Your task to perform on an android device: Check the news Image 0: 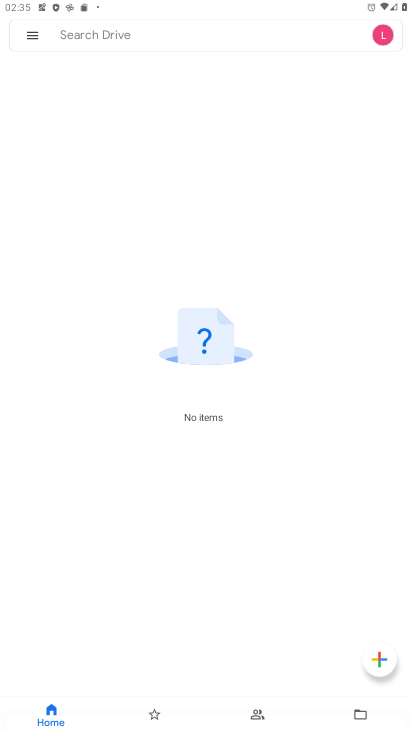
Step 0: press home button
Your task to perform on an android device: Check the news Image 1: 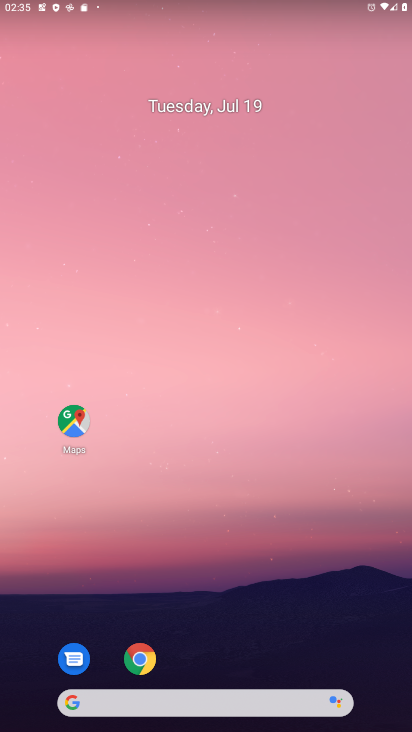
Step 1: click (313, 524)
Your task to perform on an android device: Check the news Image 2: 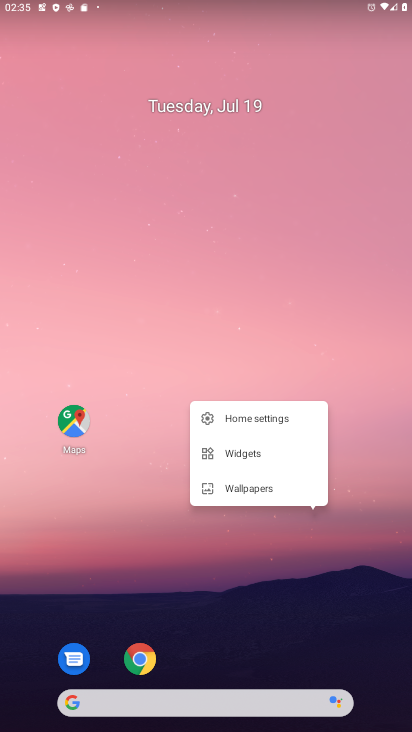
Step 2: click (156, 665)
Your task to perform on an android device: Check the news Image 3: 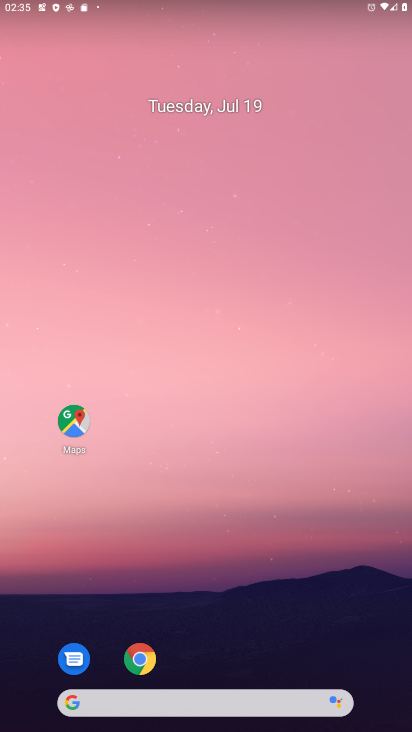
Step 3: click (156, 665)
Your task to perform on an android device: Check the news Image 4: 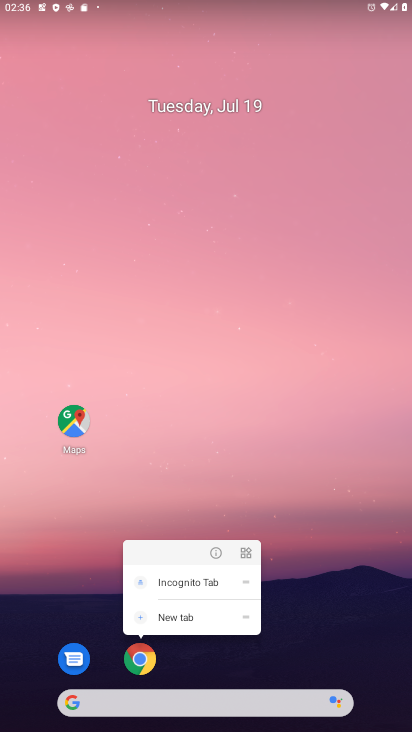
Step 4: click (150, 661)
Your task to perform on an android device: Check the news Image 5: 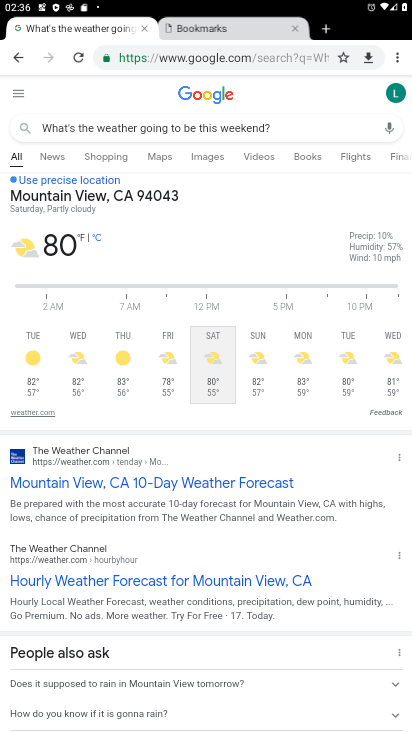
Step 5: click (190, 63)
Your task to perform on an android device: Check the news Image 6: 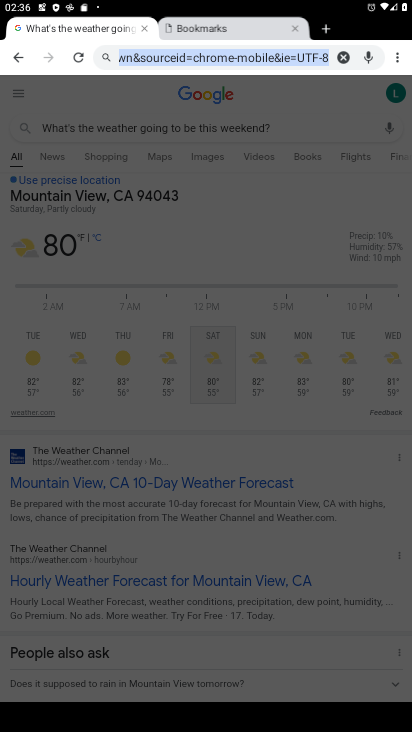
Step 6: type "news"
Your task to perform on an android device: Check the news Image 7: 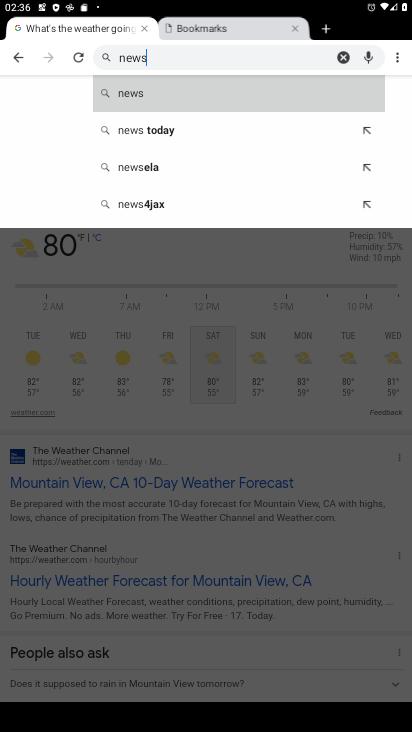
Step 7: type ""
Your task to perform on an android device: Check the news Image 8: 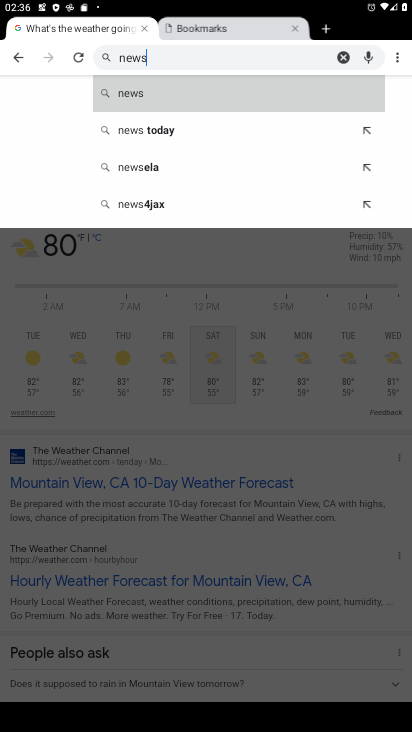
Step 8: click (174, 100)
Your task to perform on an android device: Check the news Image 9: 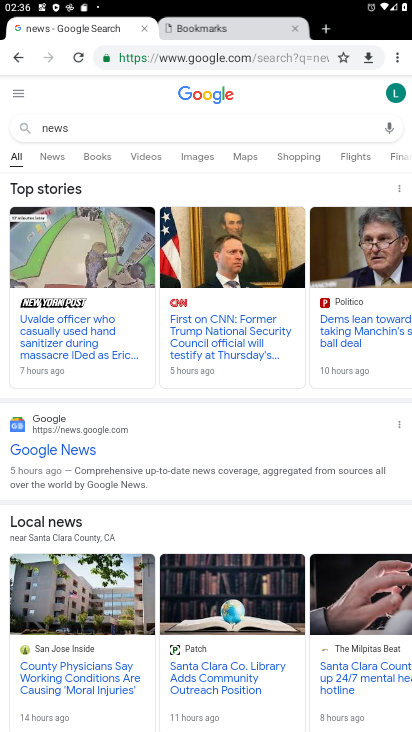
Step 9: task complete